Your task to perform on an android device: What's the weather going to be this weekend? Image 0: 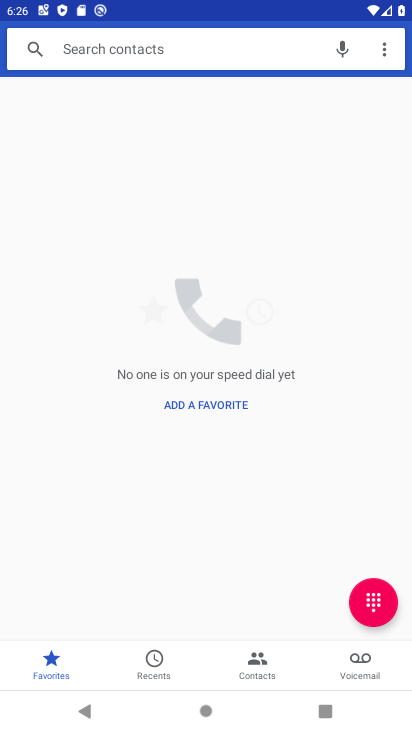
Step 0: press home button
Your task to perform on an android device: What's the weather going to be this weekend? Image 1: 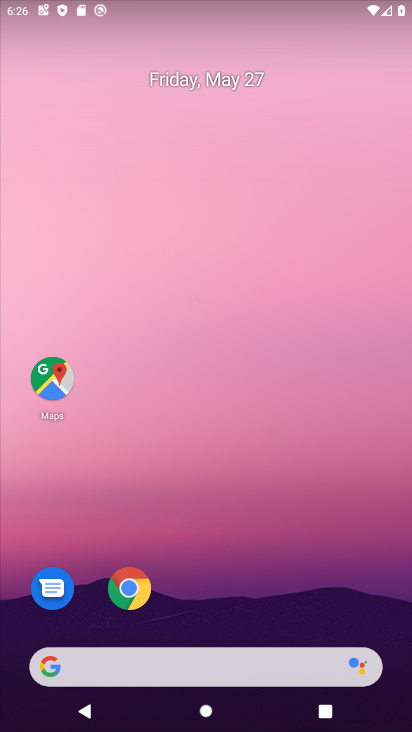
Step 1: click (59, 374)
Your task to perform on an android device: What's the weather going to be this weekend? Image 2: 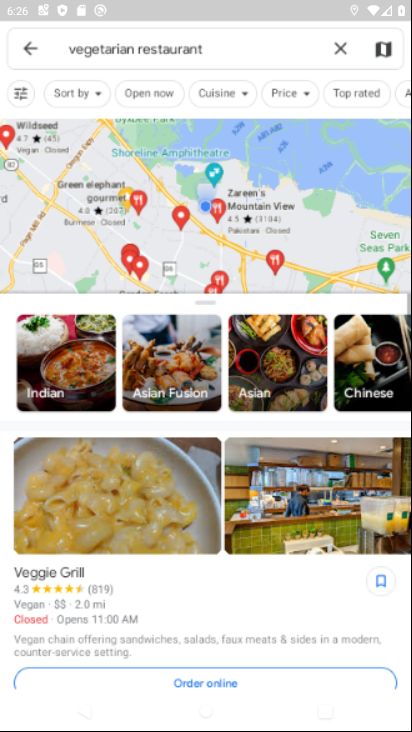
Step 2: press back button
Your task to perform on an android device: What's the weather going to be this weekend? Image 3: 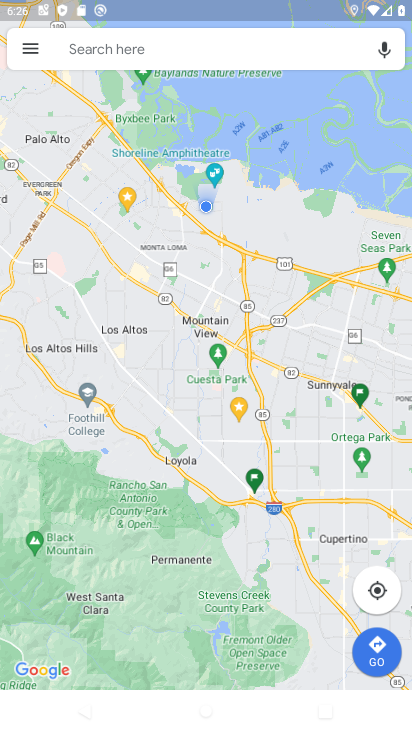
Step 3: press home button
Your task to perform on an android device: What's the weather going to be this weekend? Image 4: 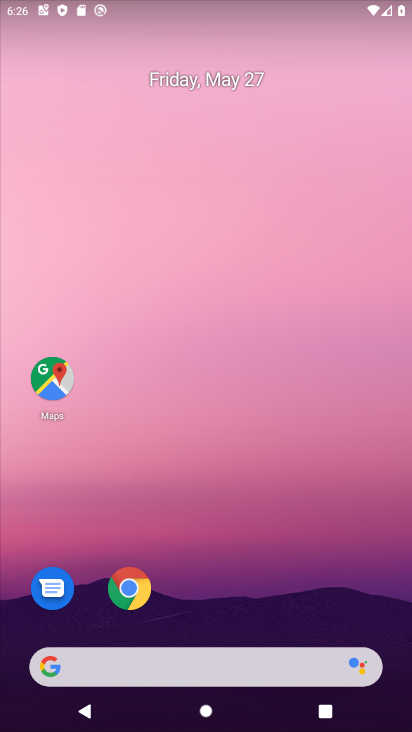
Step 4: click (128, 586)
Your task to perform on an android device: What's the weather going to be this weekend? Image 5: 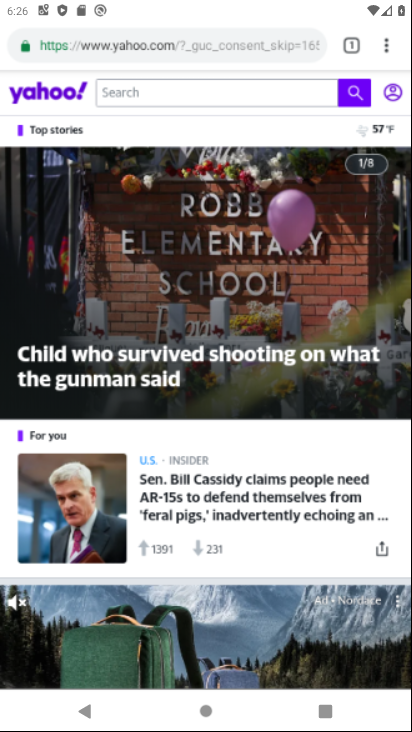
Step 5: click (283, 41)
Your task to perform on an android device: What's the weather going to be this weekend? Image 6: 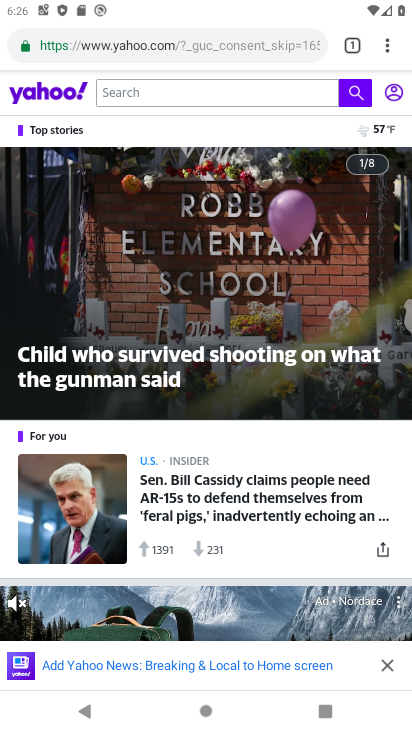
Step 6: click (169, 43)
Your task to perform on an android device: What's the weather going to be this weekend? Image 7: 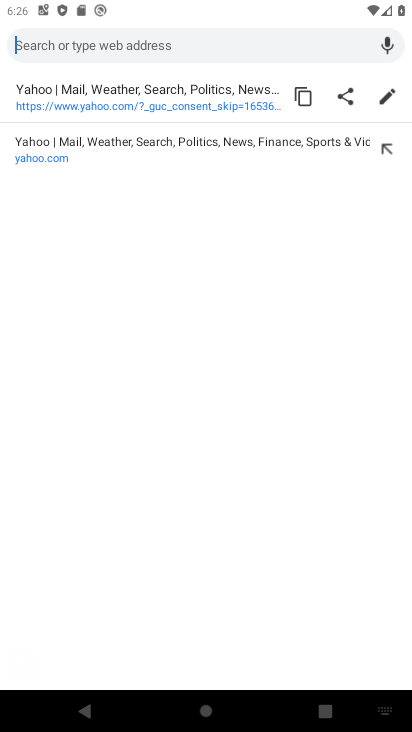
Step 7: type "What's the weather going to be this weekend?"
Your task to perform on an android device: What's the weather going to be this weekend? Image 8: 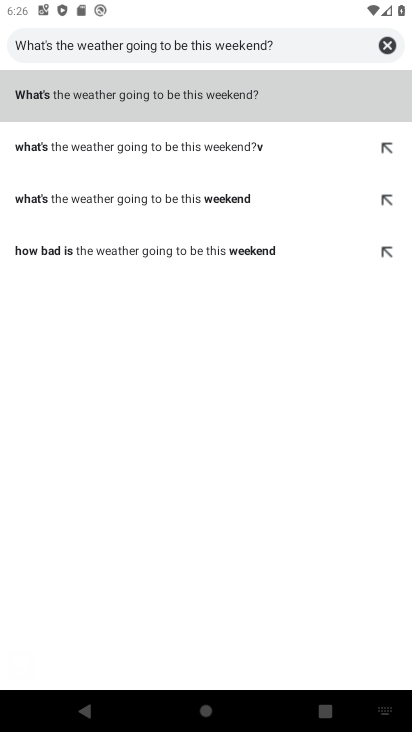
Step 8: click (130, 98)
Your task to perform on an android device: What's the weather going to be this weekend? Image 9: 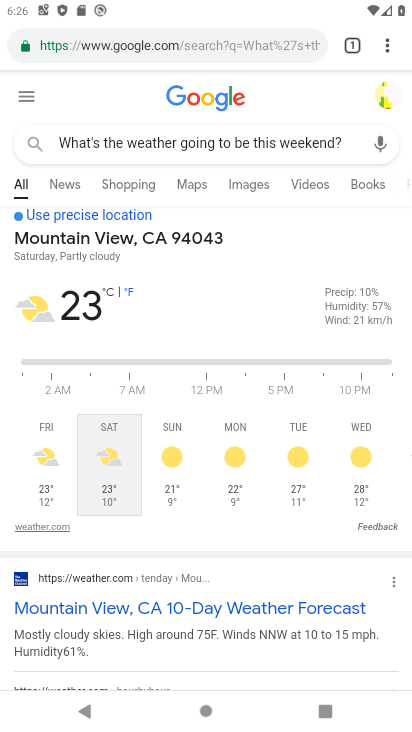
Step 9: task complete